Your task to perform on an android device: delete the emails in spam in the gmail app Image 0: 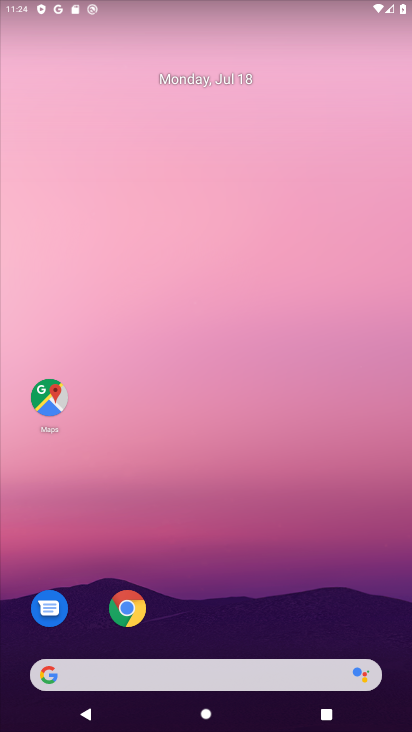
Step 0: drag from (237, 577) to (374, 4)
Your task to perform on an android device: delete the emails in spam in the gmail app Image 1: 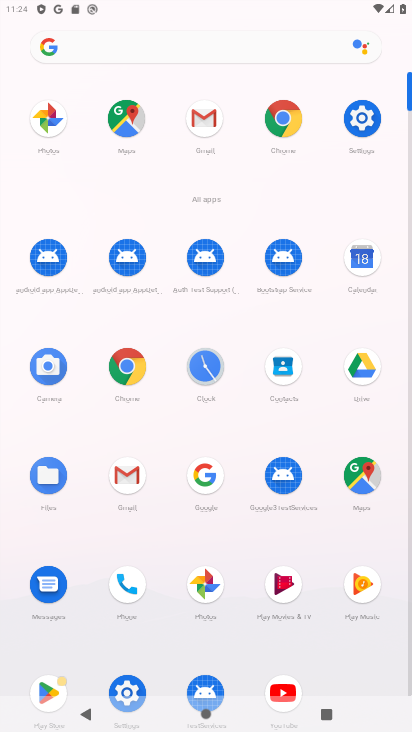
Step 1: click (199, 127)
Your task to perform on an android device: delete the emails in spam in the gmail app Image 2: 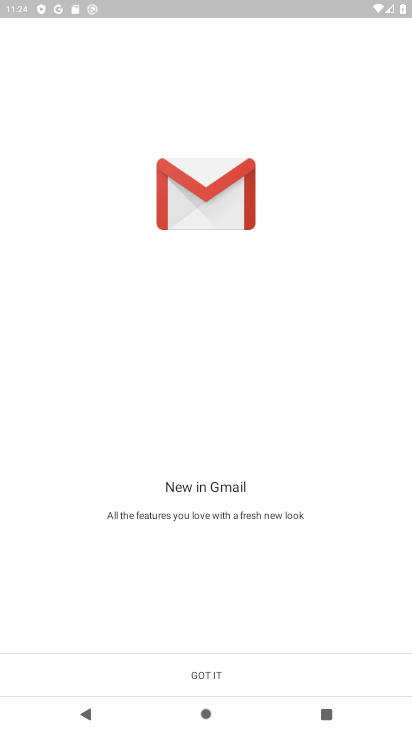
Step 2: click (202, 666)
Your task to perform on an android device: delete the emails in spam in the gmail app Image 3: 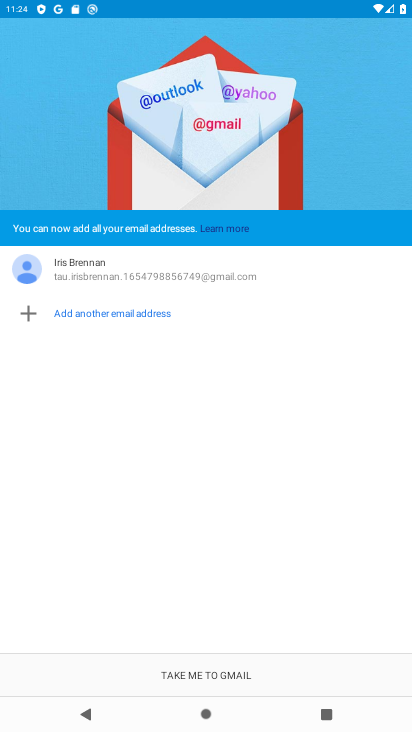
Step 3: click (202, 655)
Your task to perform on an android device: delete the emails in spam in the gmail app Image 4: 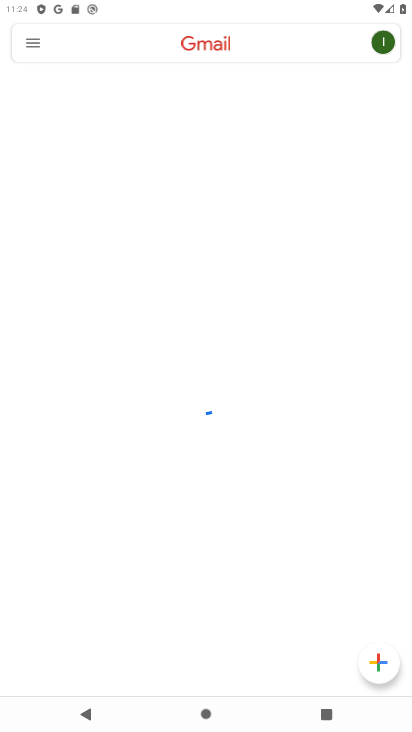
Step 4: click (24, 44)
Your task to perform on an android device: delete the emails in spam in the gmail app Image 5: 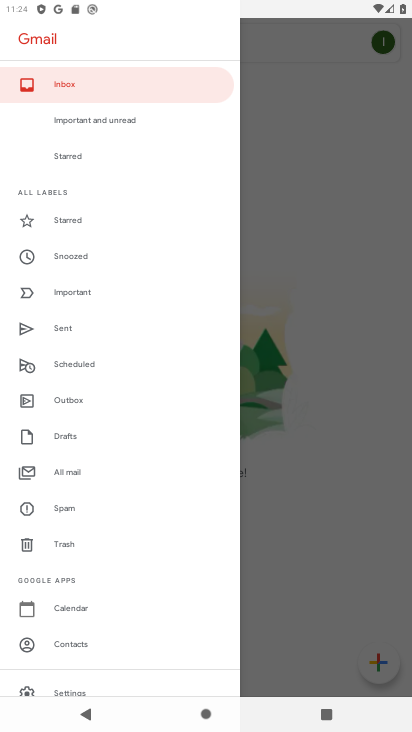
Step 5: click (65, 505)
Your task to perform on an android device: delete the emails in spam in the gmail app Image 6: 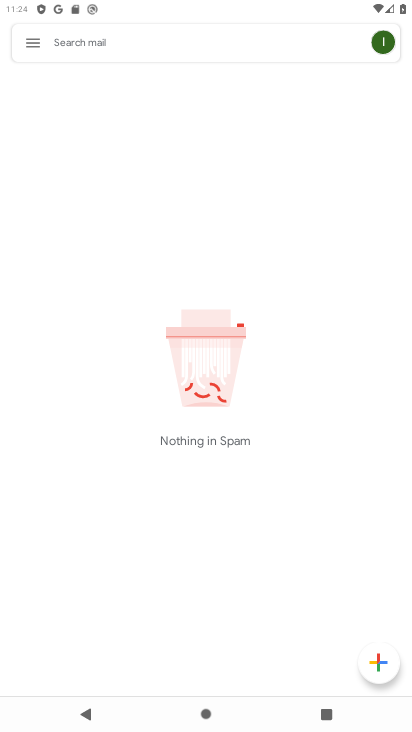
Step 6: task complete